Your task to perform on an android device: When is my next appointment? Image 0: 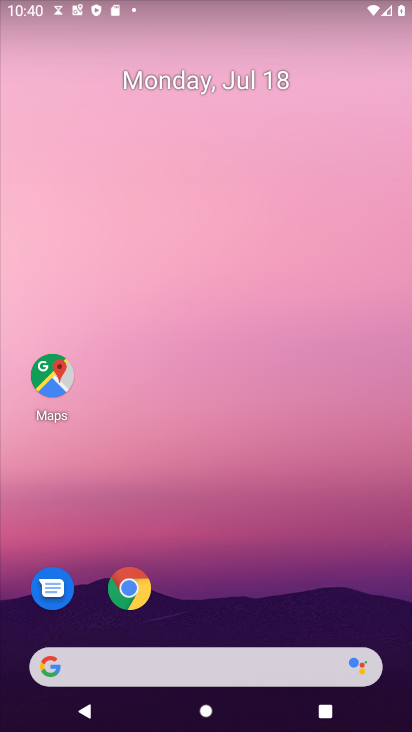
Step 0: drag from (226, 714) to (223, 125)
Your task to perform on an android device: When is my next appointment? Image 1: 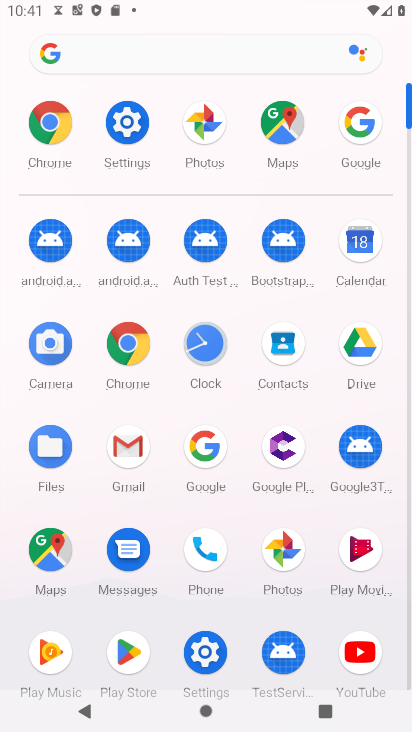
Step 1: click (368, 245)
Your task to perform on an android device: When is my next appointment? Image 2: 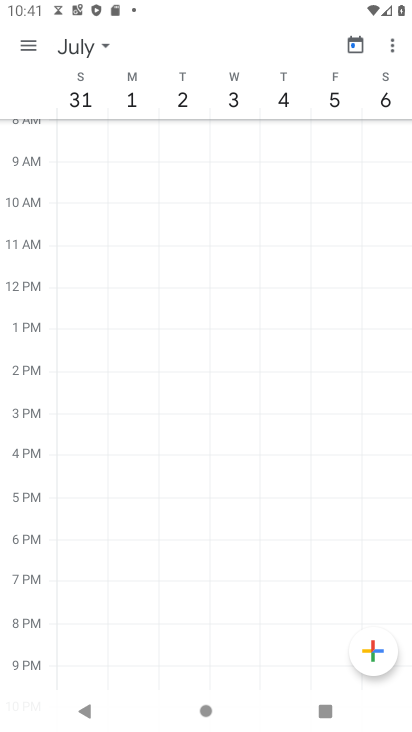
Step 2: click (104, 41)
Your task to perform on an android device: When is my next appointment? Image 3: 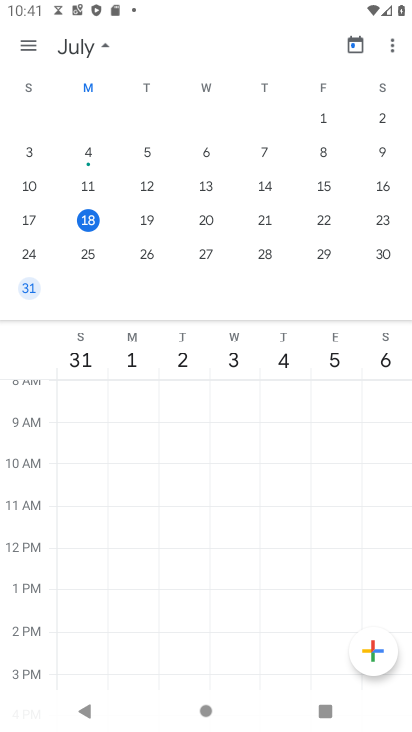
Step 3: click (146, 221)
Your task to perform on an android device: When is my next appointment? Image 4: 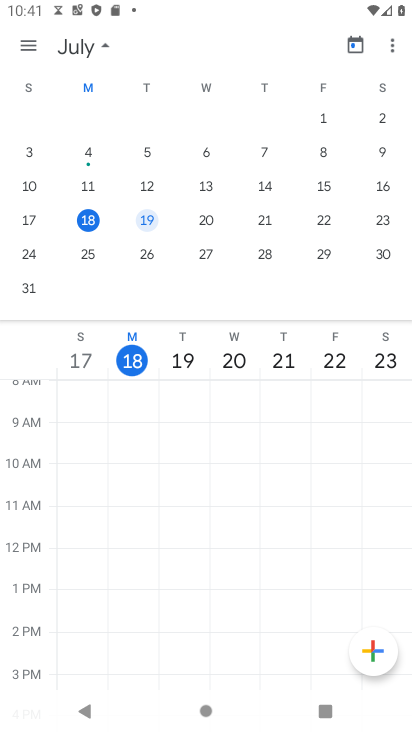
Step 4: click (145, 219)
Your task to perform on an android device: When is my next appointment? Image 5: 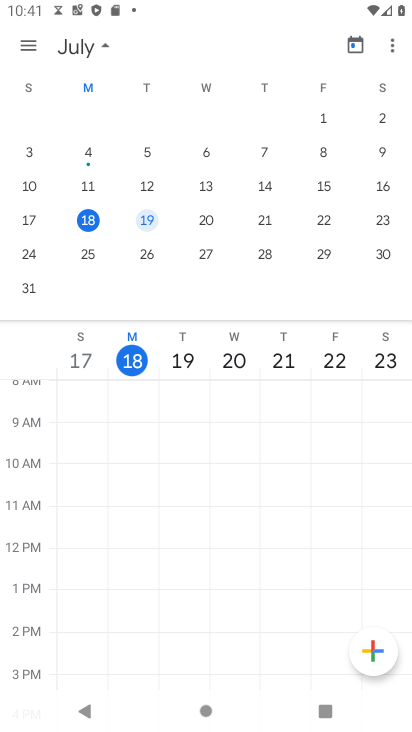
Step 5: click (184, 359)
Your task to perform on an android device: When is my next appointment? Image 6: 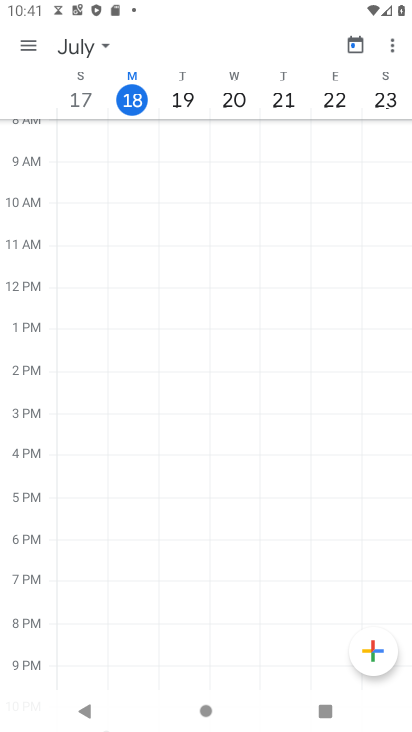
Step 6: task complete